Your task to perform on an android device: move an email to a new category in the gmail app Image 0: 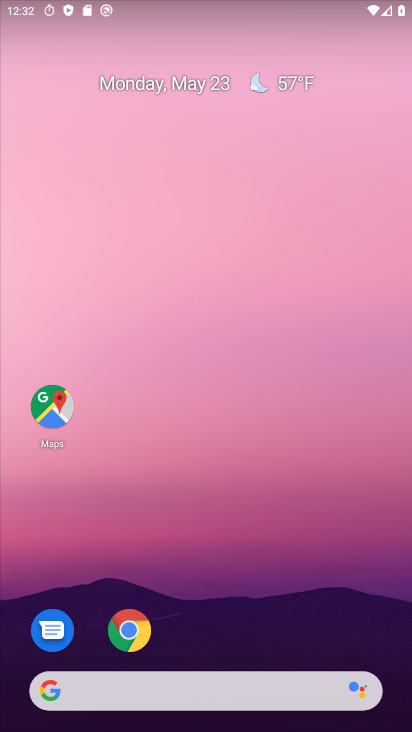
Step 0: drag from (233, 593) to (202, 46)
Your task to perform on an android device: move an email to a new category in the gmail app Image 1: 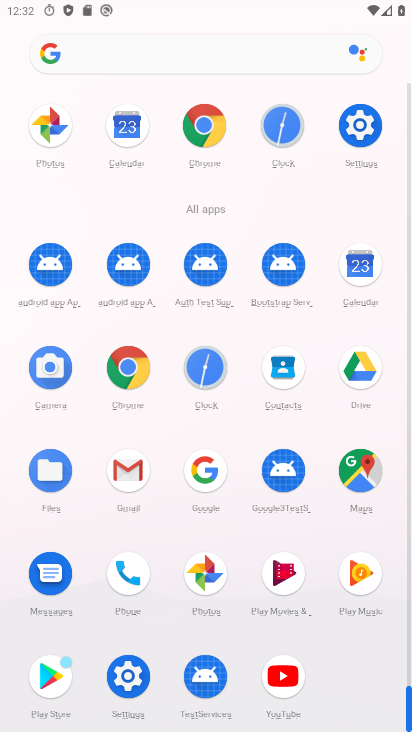
Step 1: click (125, 473)
Your task to perform on an android device: move an email to a new category in the gmail app Image 2: 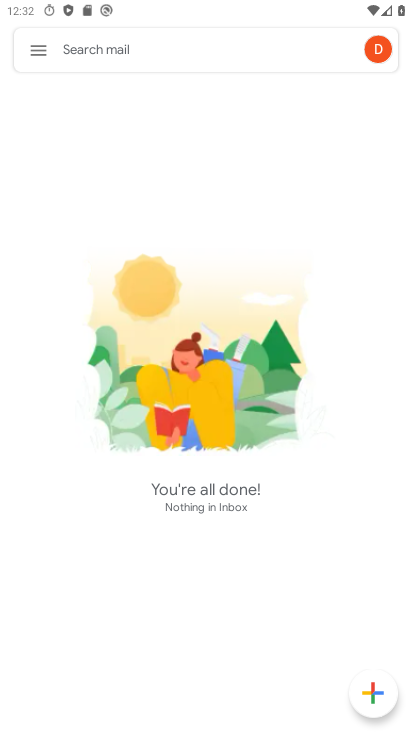
Step 2: click (32, 35)
Your task to perform on an android device: move an email to a new category in the gmail app Image 3: 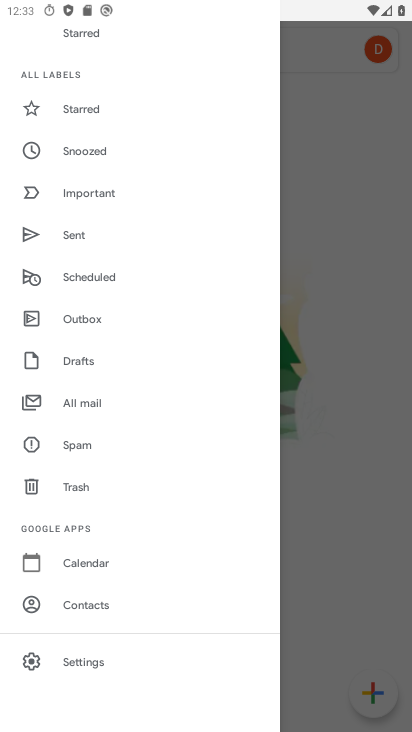
Step 3: click (96, 399)
Your task to perform on an android device: move an email to a new category in the gmail app Image 4: 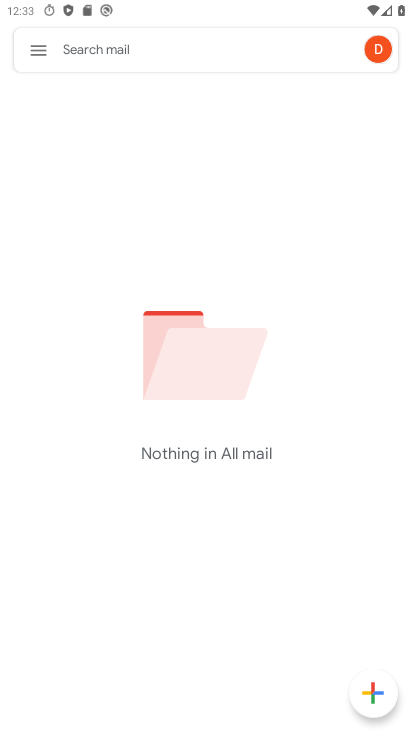
Step 4: click (31, 38)
Your task to perform on an android device: move an email to a new category in the gmail app Image 5: 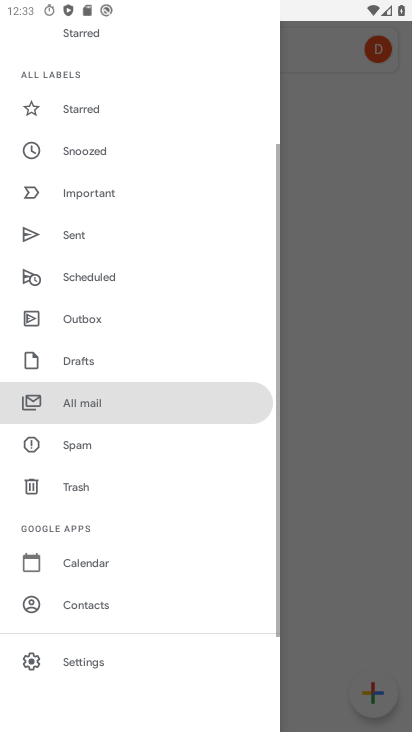
Step 5: task complete